Your task to perform on an android device: open app "ColorNote Notepad Notes" (install if not already installed) and go to login screen Image 0: 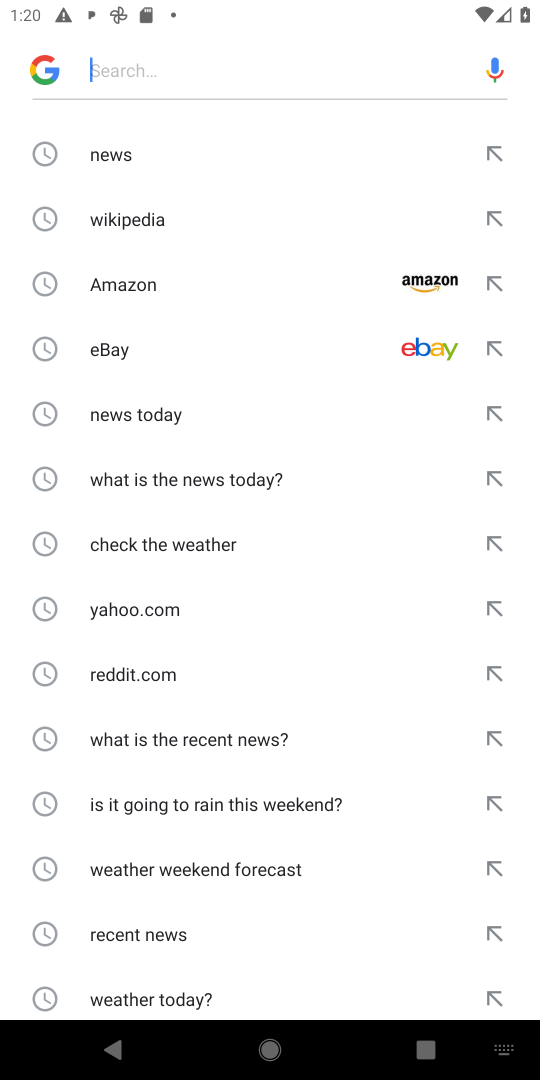
Step 0: press home button
Your task to perform on an android device: open app "ColorNote Notepad Notes" (install if not already installed) and go to login screen Image 1: 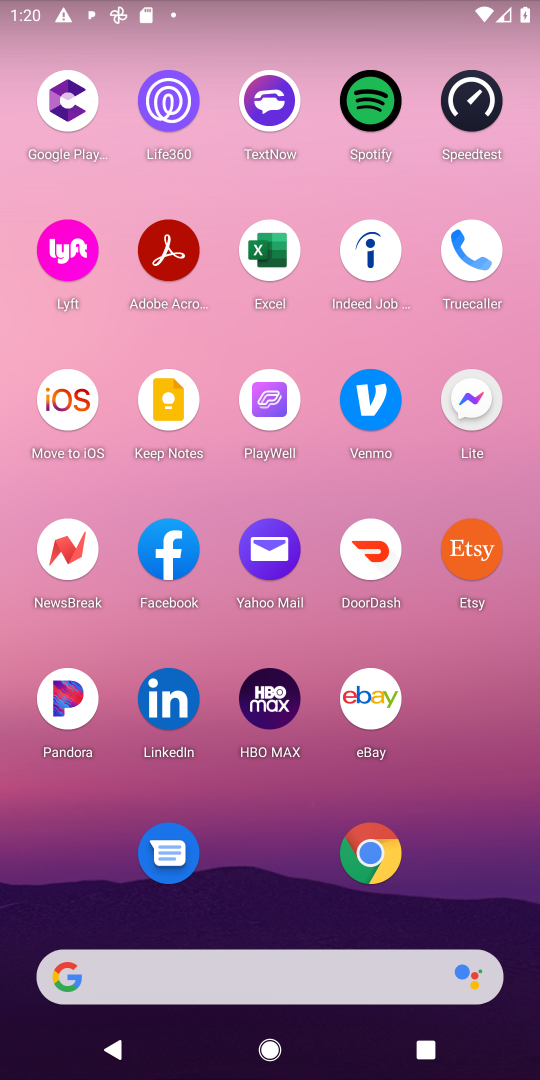
Step 1: drag from (200, 918) to (206, 463)
Your task to perform on an android device: open app "ColorNote Notepad Notes" (install if not already installed) and go to login screen Image 2: 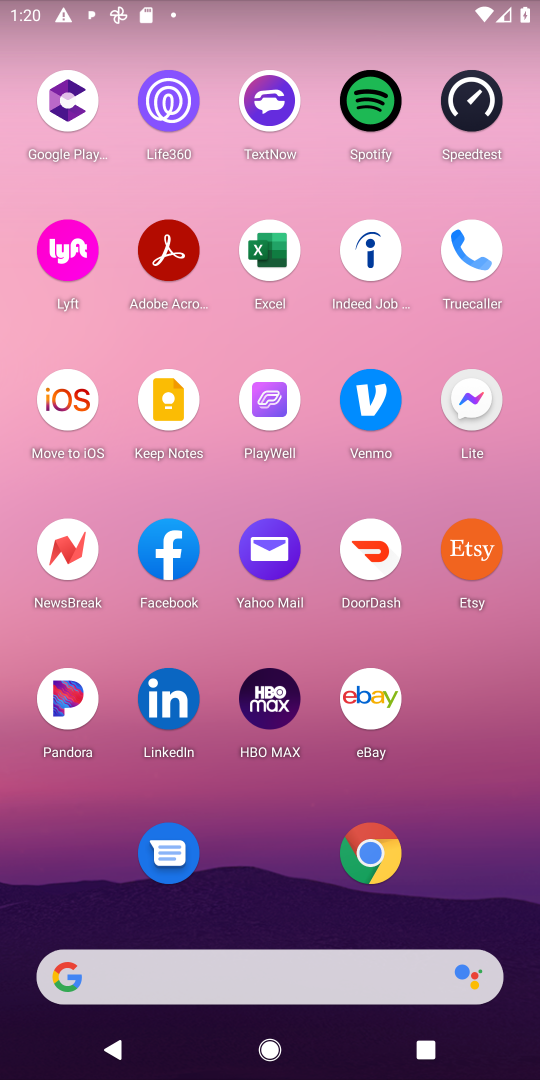
Step 2: drag from (273, 851) to (324, 336)
Your task to perform on an android device: open app "ColorNote Notepad Notes" (install if not already installed) and go to login screen Image 3: 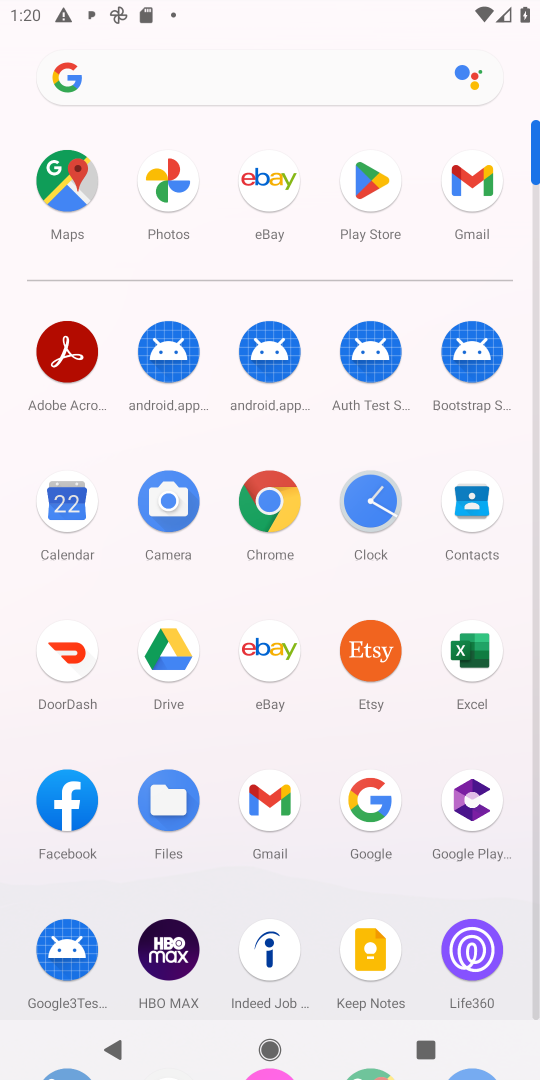
Step 3: click (372, 183)
Your task to perform on an android device: open app "ColorNote Notepad Notes" (install if not already installed) and go to login screen Image 4: 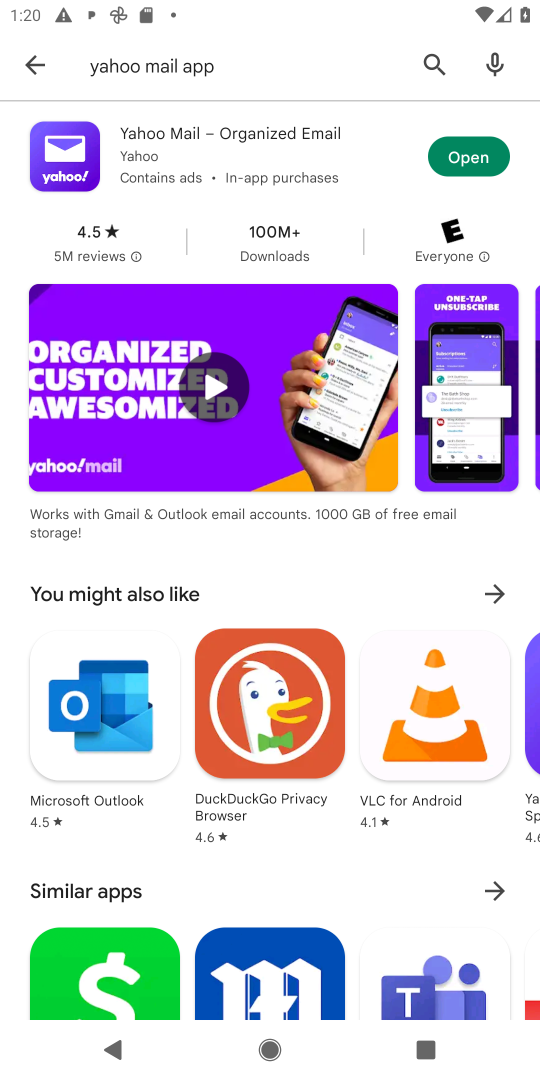
Step 4: click (33, 78)
Your task to perform on an android device: open app "ColorNote Notepad Notes" (install if not already installed) and go to login screen Image 5: 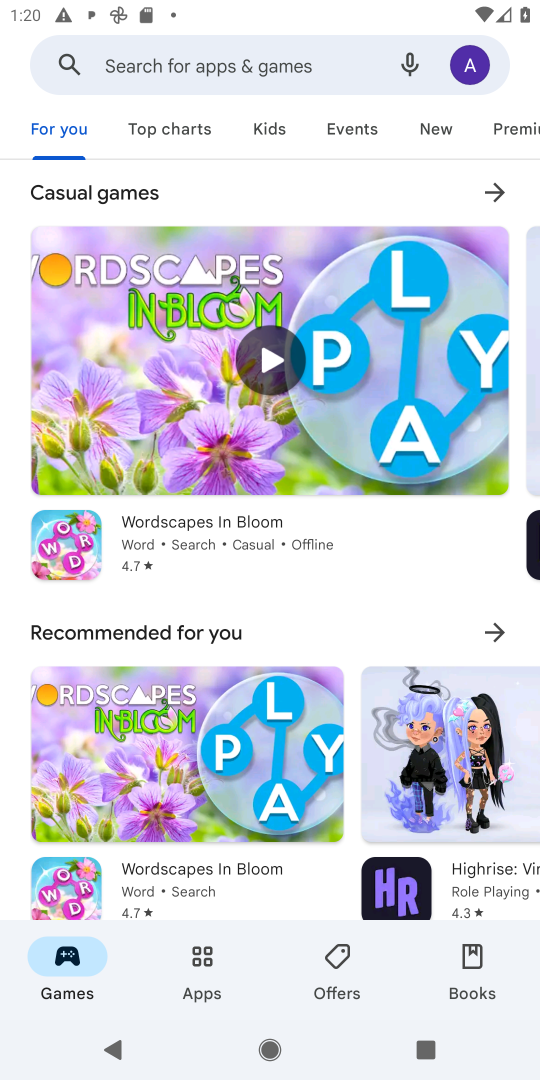
Step 5: click (203, 58)
Your task to perform on an android device: open app "ColorNote Notepad Notes" (install if not already installed) and go to login screen Image 6: 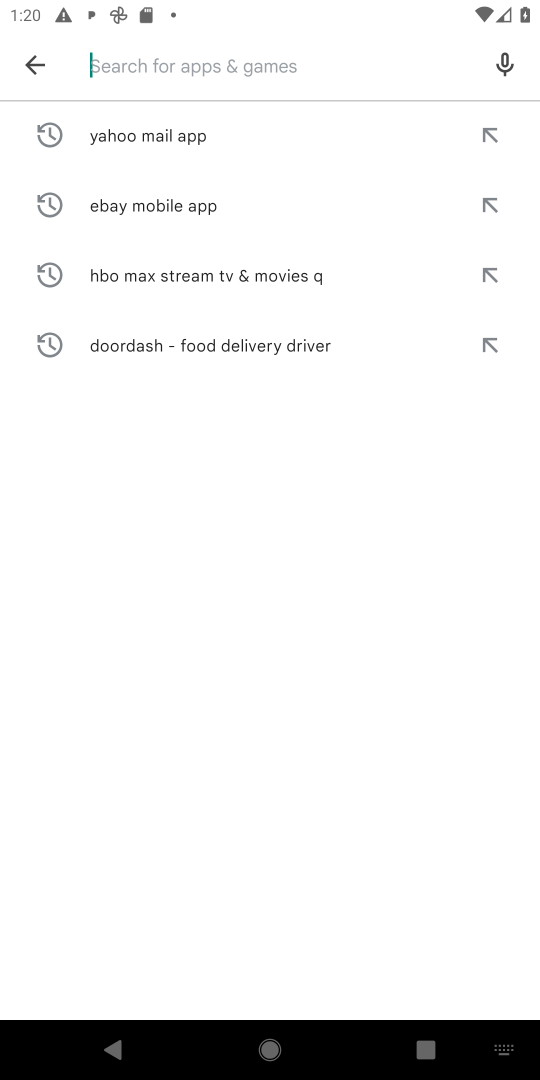
Step 6: type "ColorNote Notepad Notes "
Your task to perform on an android device: open app "ColorNote Notepad Notes" (install if not already installed) and go to login screen Image 7: 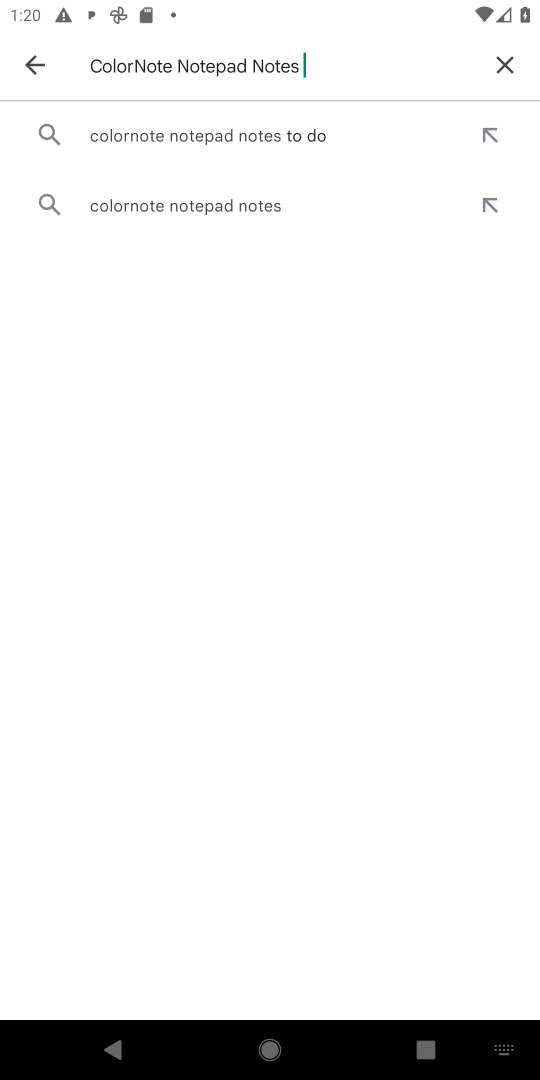
Step 7: click (175, 140)
Your task to perform on an android device: open app "ColorNote Notepad Notes" (install if not already installed) and go to login screen Image 8: 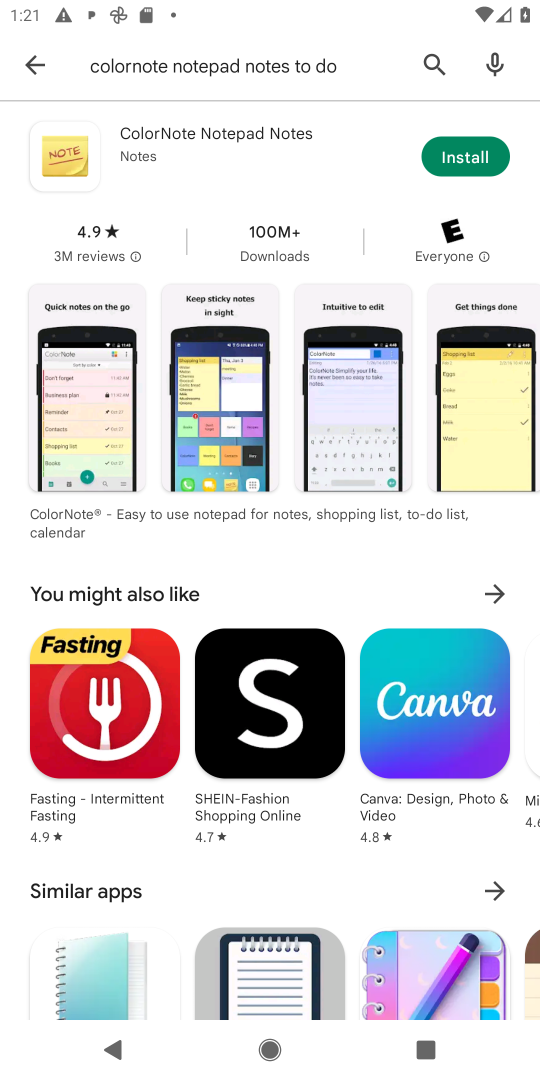
Step 8: click (455, 148)
Your task to perform on an android device: open app "ColorNote Notepad Notes" (install if not already installed) and go to login screen Image 9: 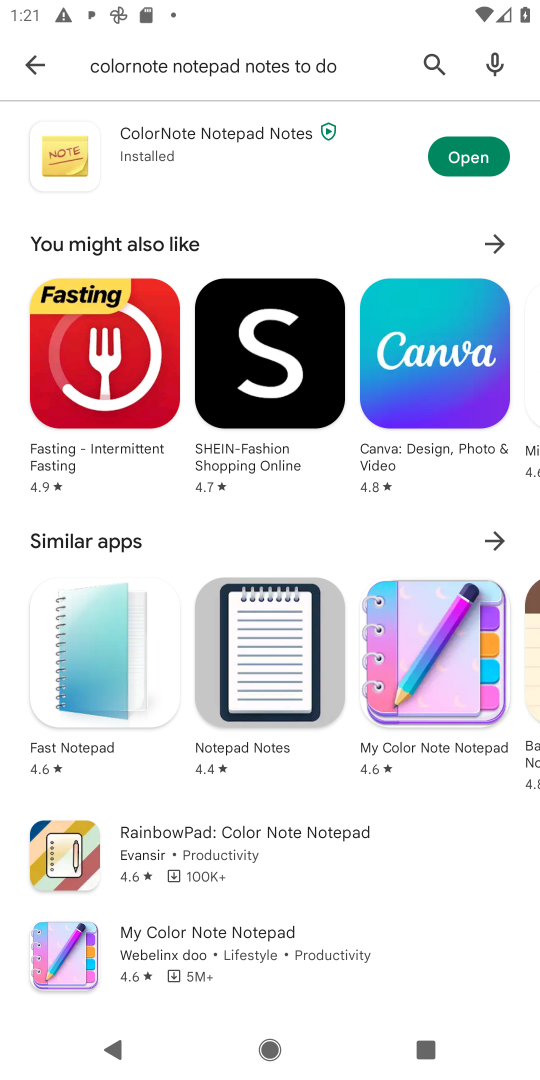
Step 9: click (455, 148)
Your task to perform on an android device: open app "ColorNote Notepad Notes" (install if not already installed) and go to login screen Image 10: 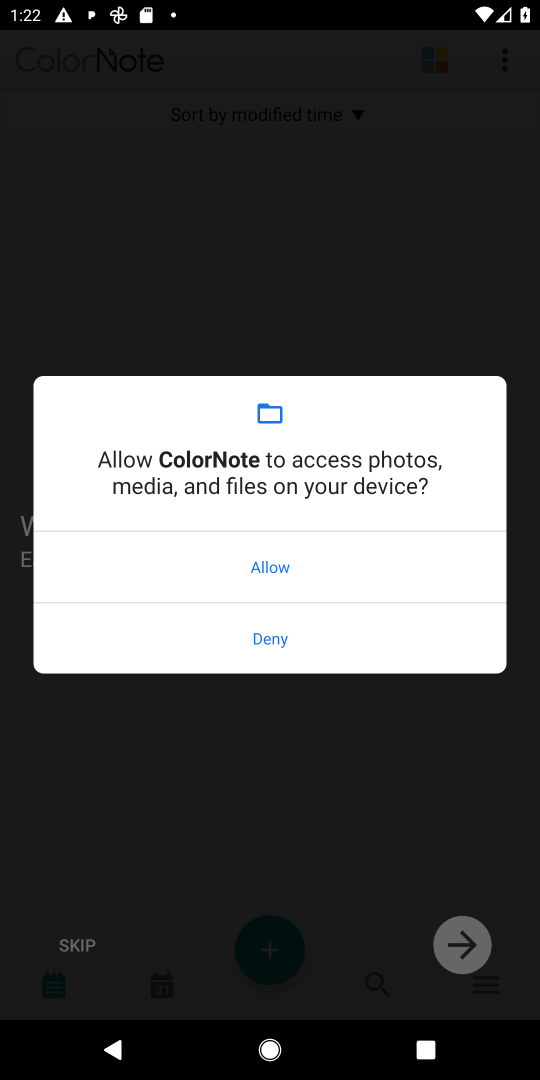
Step 10: click (269, 563)
Your task to perform on an android device: open app "ColorNote Notepad Notes" (install if not already installed) and go to login screen Image 11: 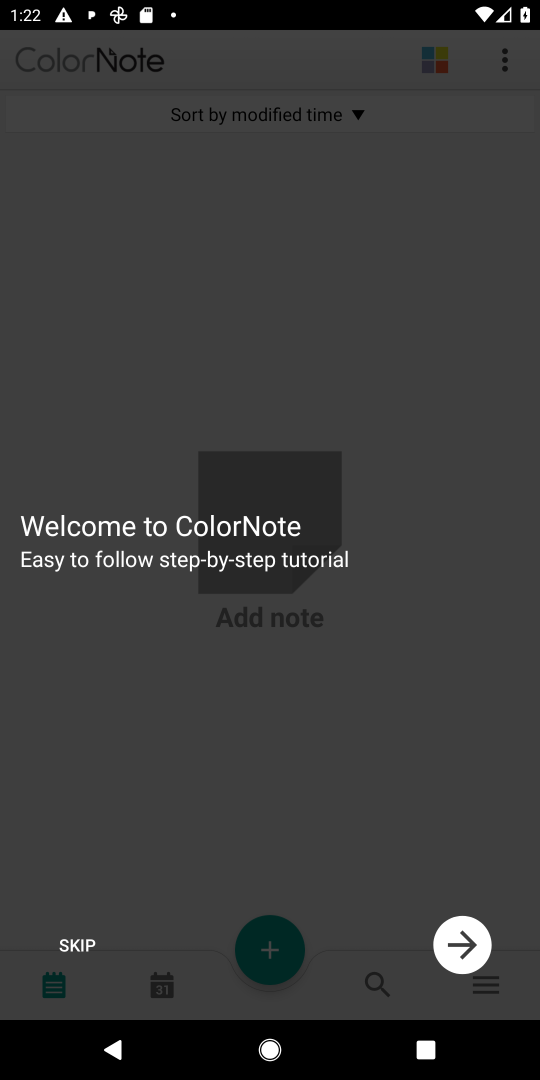
Step 11: task complete